Your task to perform on an android device: turn off notifications in google photos Image 0: 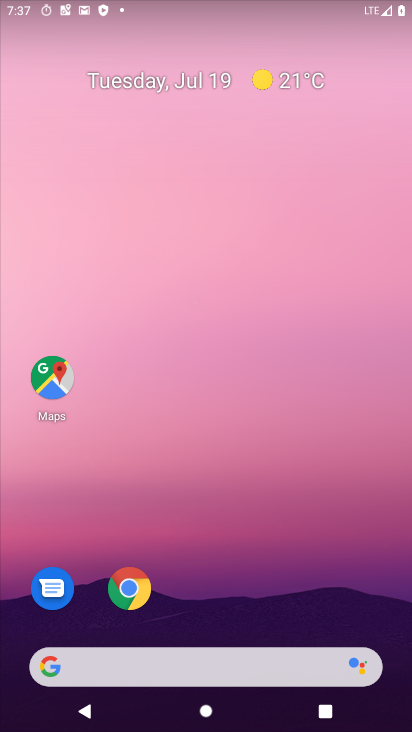
Step 0: drag from (233, 589) to (212, 142)
Your task to perform on an android device: turn off notifications in google photos Image 1: 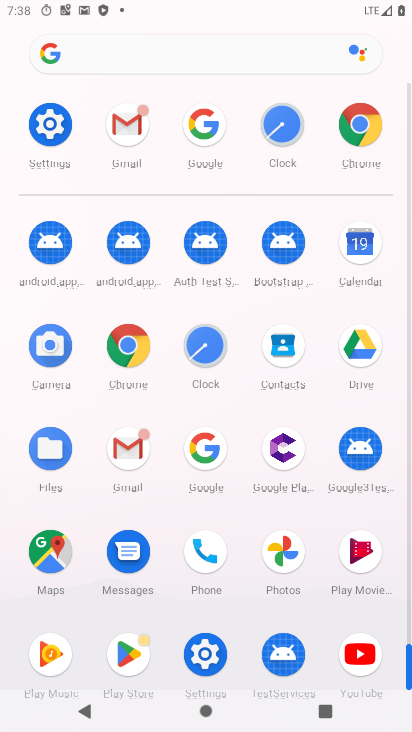
Step 1: click (287, 556)
Your task to perform on an android device: turn off notifications in google photos Image 2: 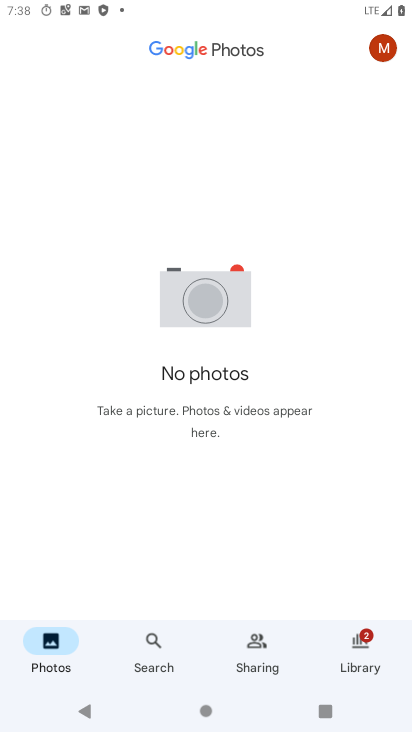
Step 2: click (380, 57)
Your task to perform on an android device: turn off notifications in google photos Image 3: 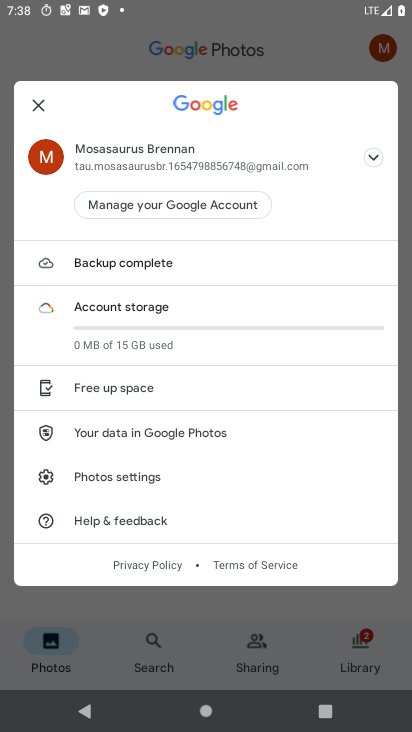
Step 3: click (135, 481)
Your task to perform on an android device: turn off notifications in google photos Image 4: 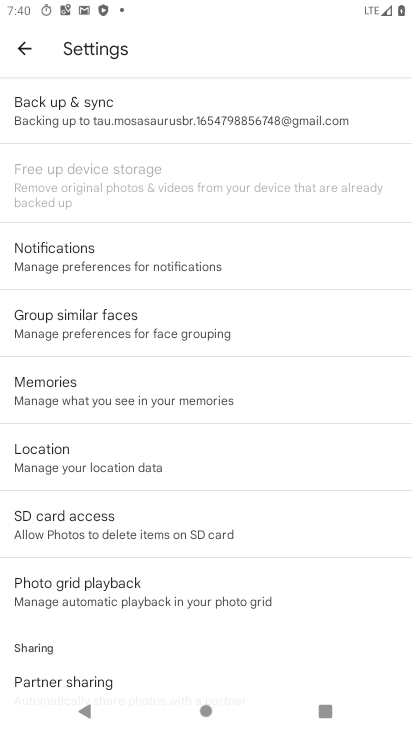
Step 4: click (199, 258)
Your task to perform on an android device: turn off notifications in google photos Image 5: 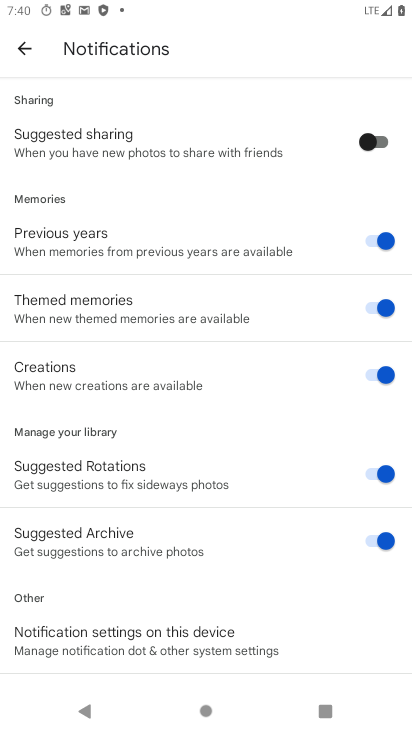
Step 5: drag from (166, 547) to (166, 87)
Your task to perform on an android device: turn off notifications in google photos Image 6: 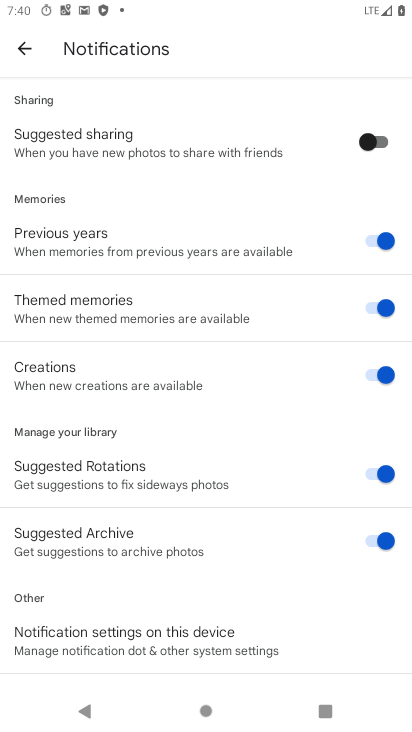
Step 6: click (166, 640)
Your task to perform on an android device: turn off notifications in google photos Image 7: 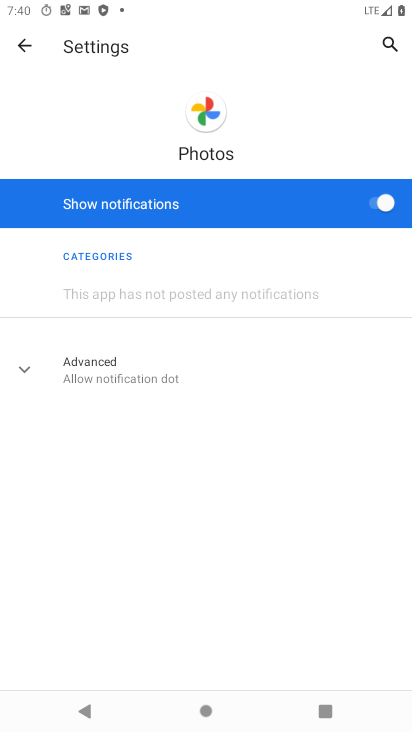
Step 7: click (389, 209)
Your task to perform on an android device: turn off notifications in google photos Image 8: 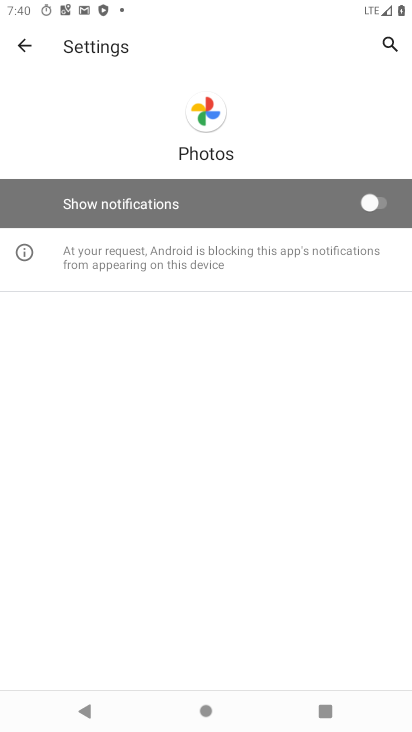
Step 8: task complete